Your task to perform on an android device: open wifi settings Image 0: 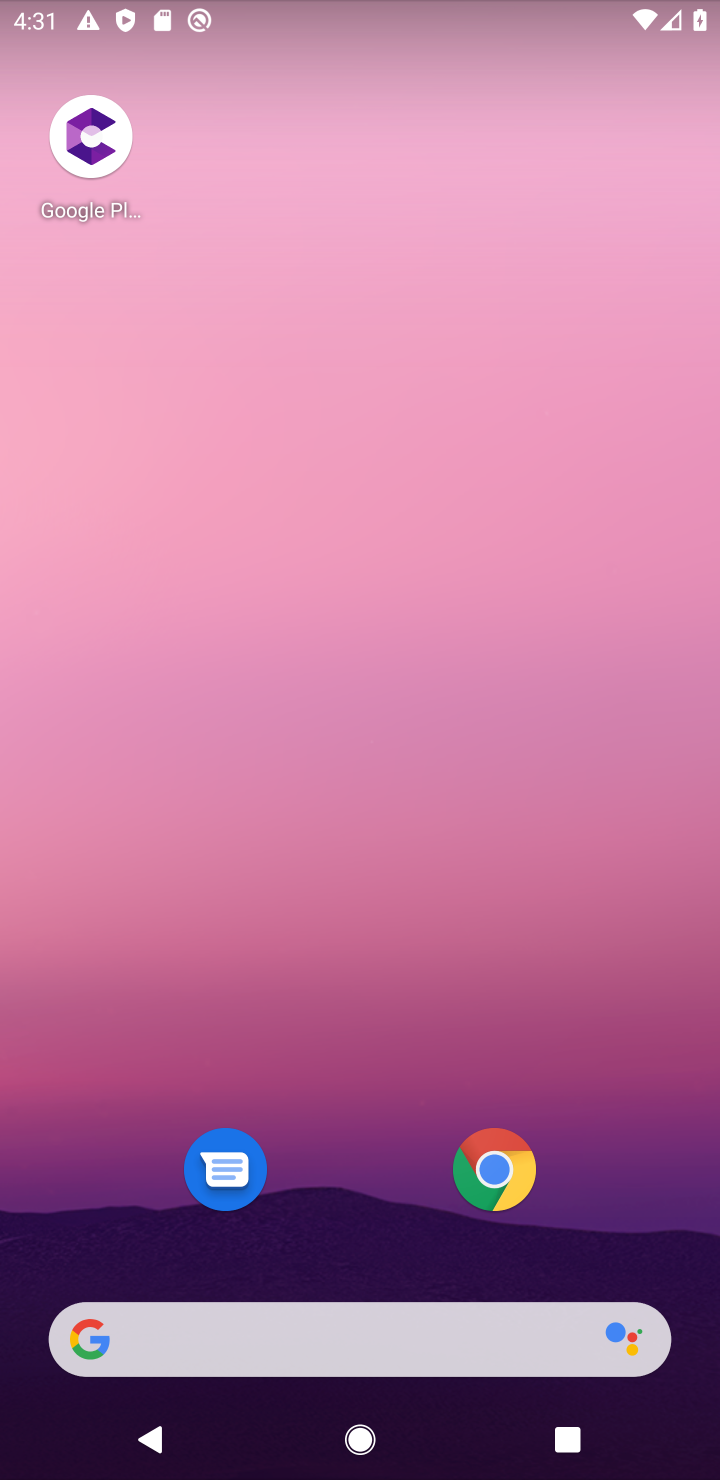
Step 0: drag from (355, 1244) to (326, 571)
Your task to perform on an android device: open wifi settings Image 1: 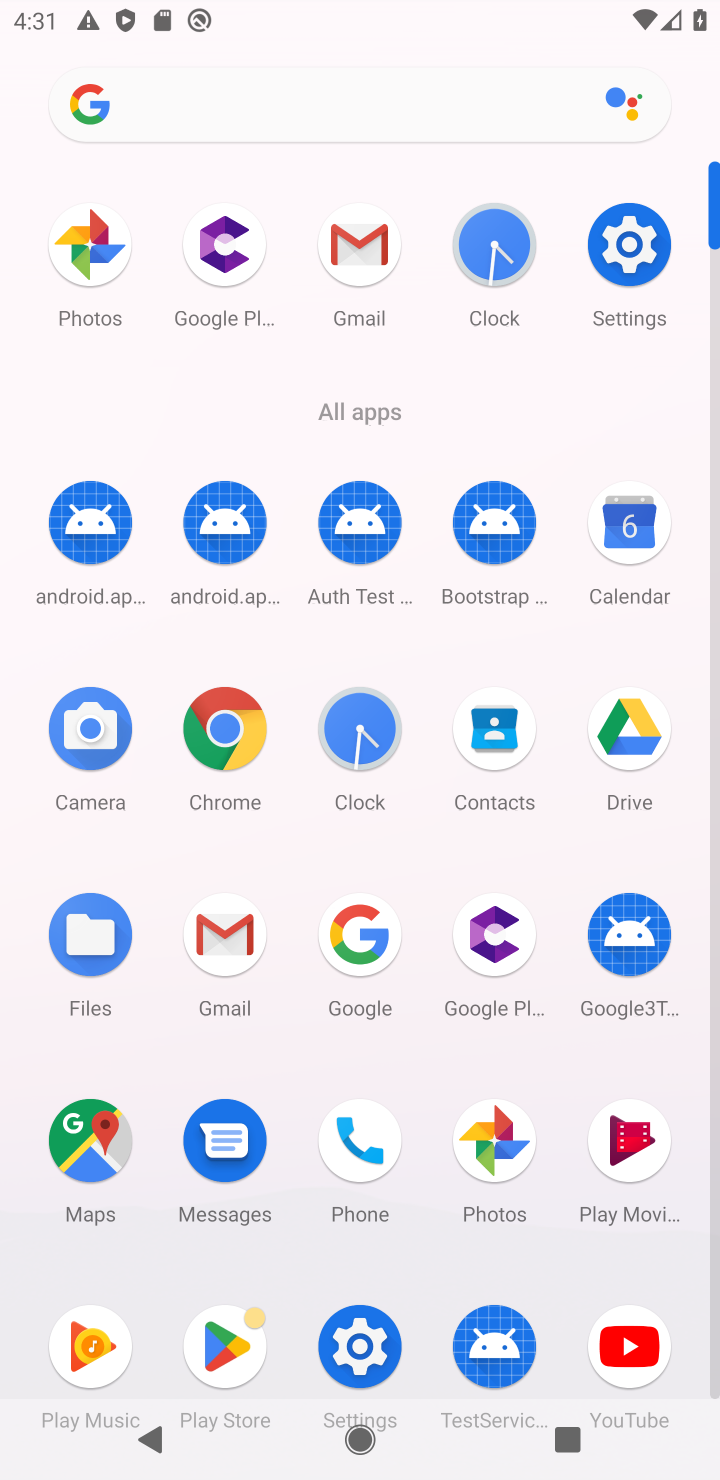
Step 1: click (640, 232)
Your task to perform on an android device: open wifi settings Image 2: 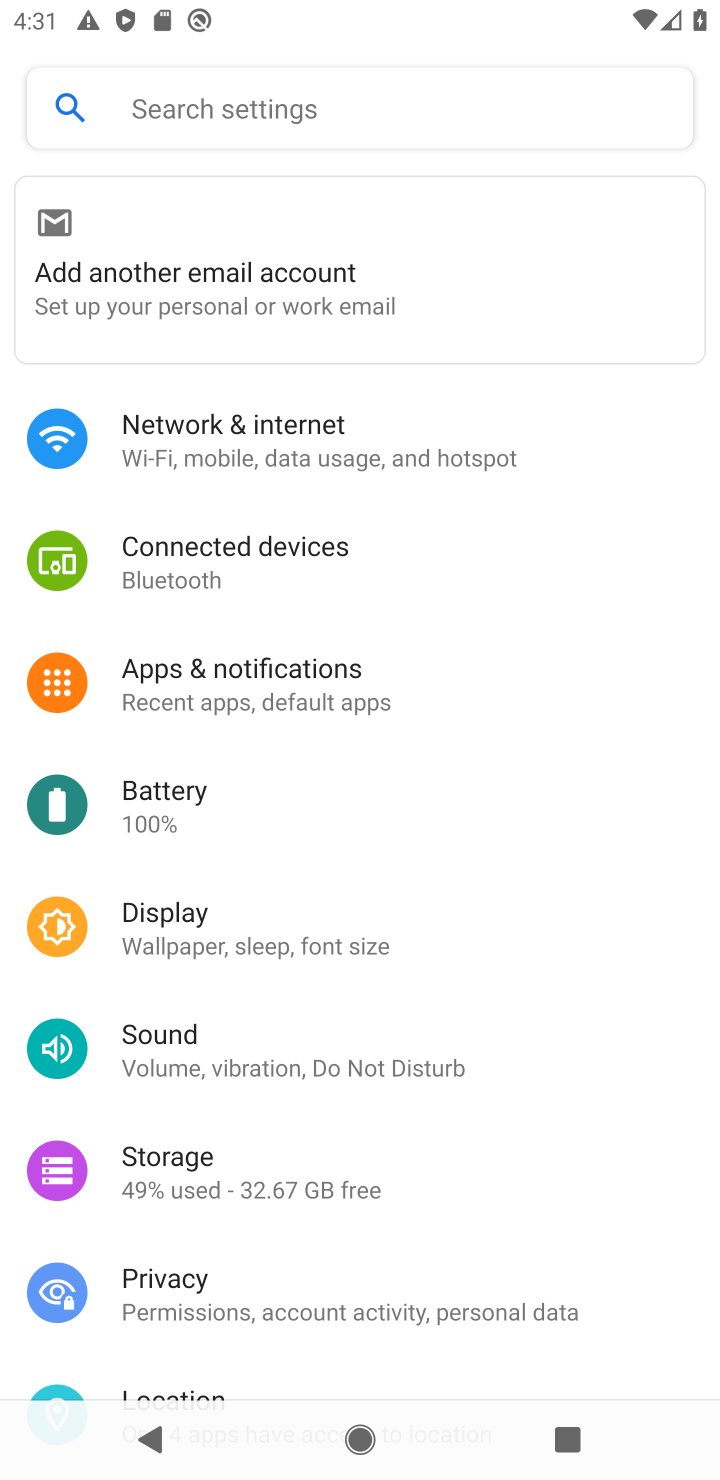
Step 2: click (345, 435)
Your task to perform on an android device: open wifi settings Image 3: 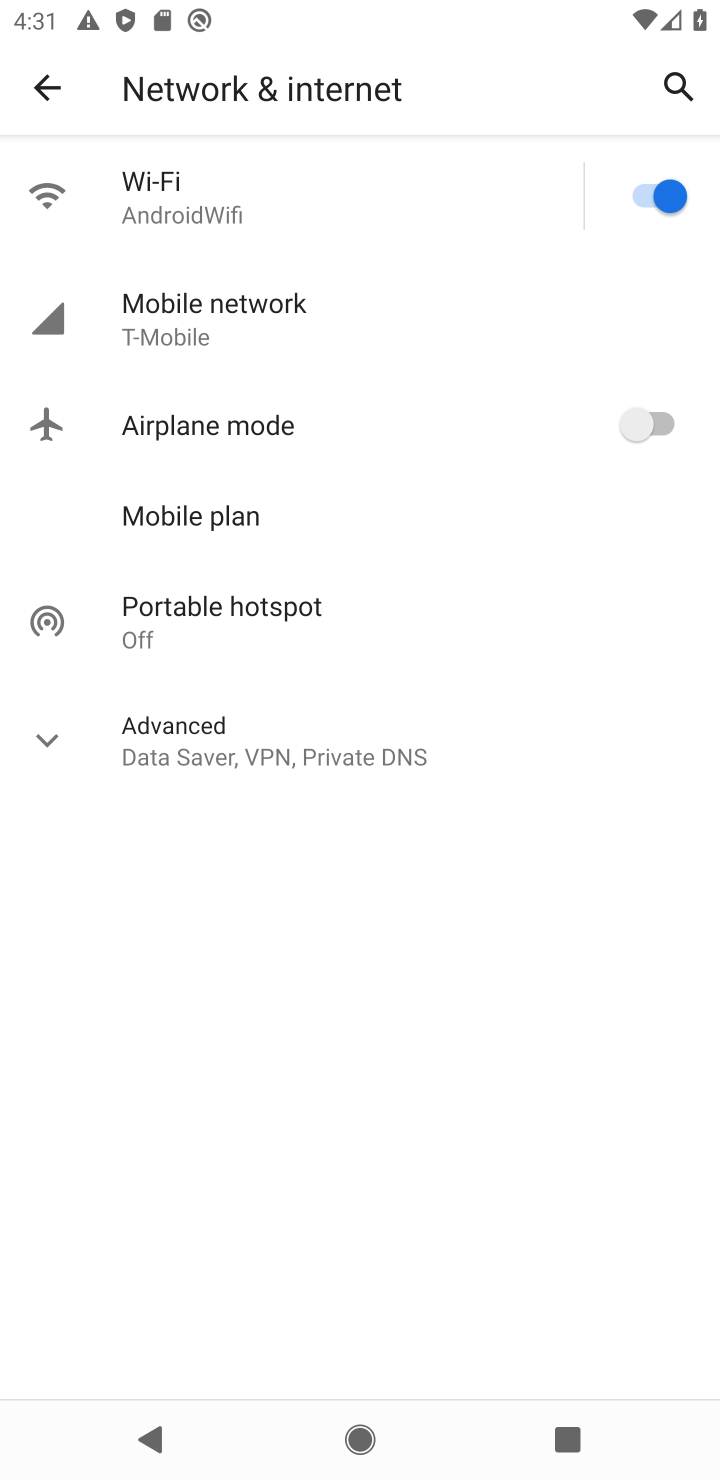
Step 3: click (263, 197)
Your task to perform on an android device: open wifi settings Image 4: 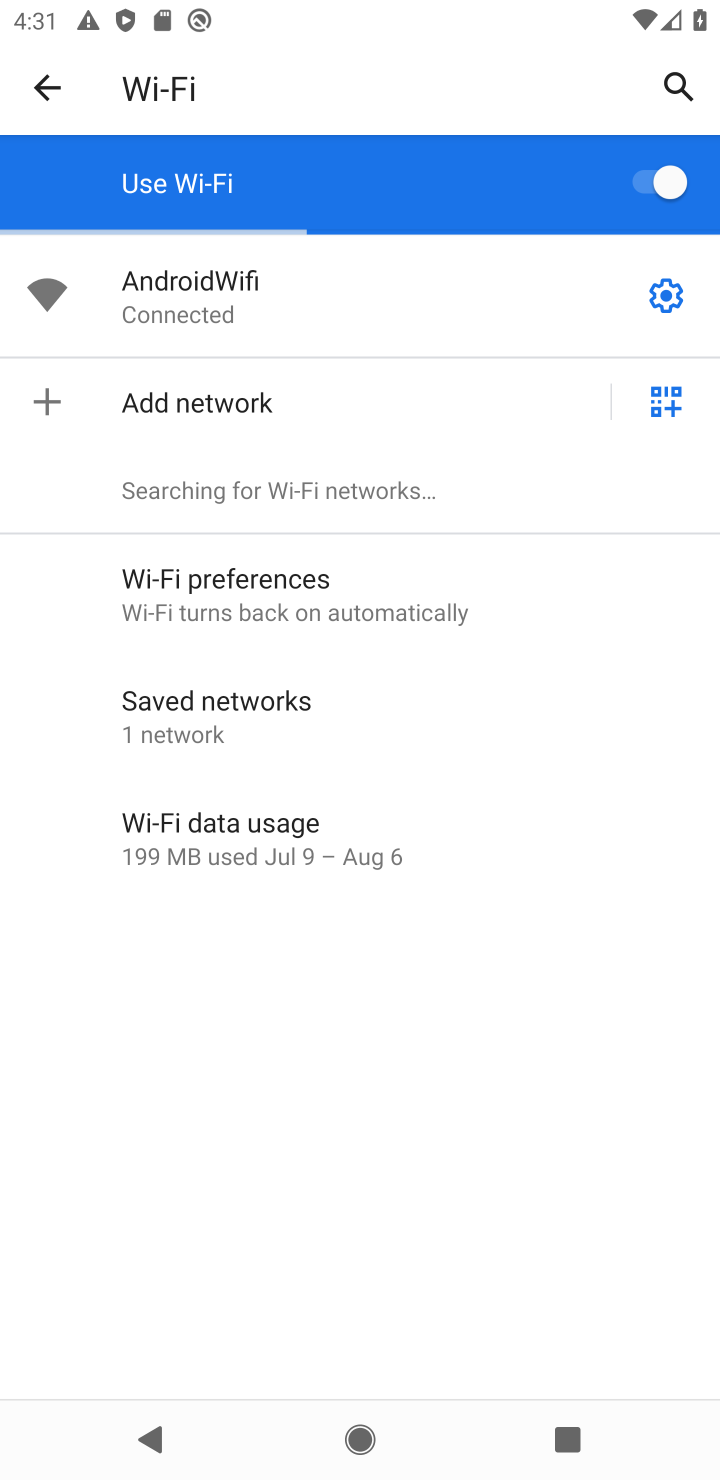
Step 4: task complete